Your task to perform on an android device: Do I have any events tomorrow? Image 0: 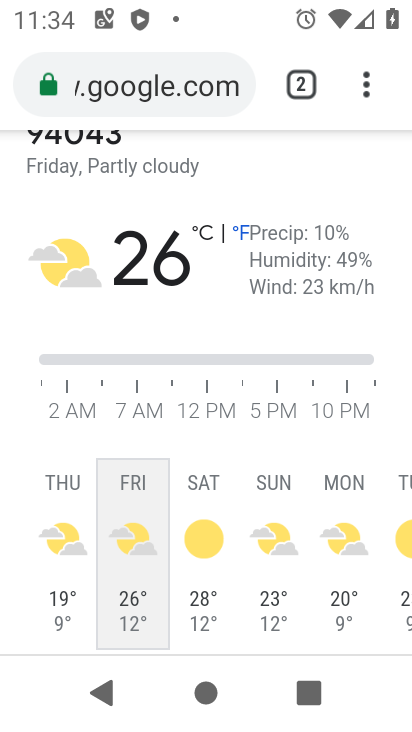
Step 0: press home button
Your task to perform on an android device: Do I have any events tomorrow? Image 1: 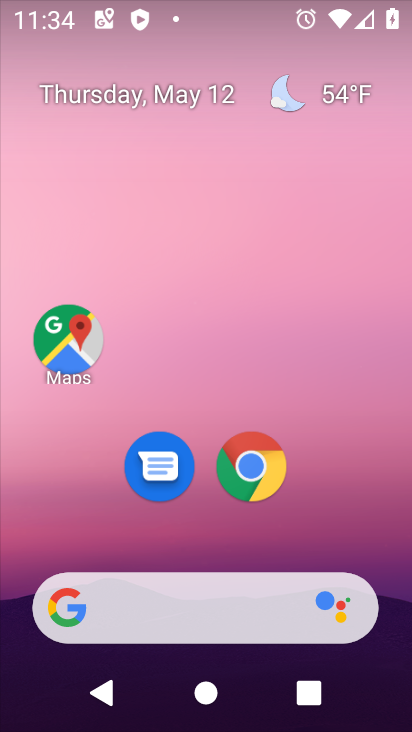
Step 1: drag from (338, 523) to (339, 216)
Your task to perform on an android device: Do I have any events tomorrow? Image 2: 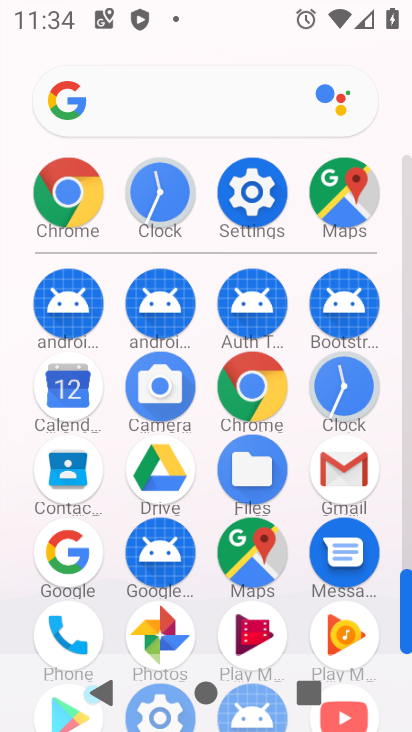
Step 2: click (55, 399)
Your task to perform on an android device: Do I have any events tomorrow? Image 3: 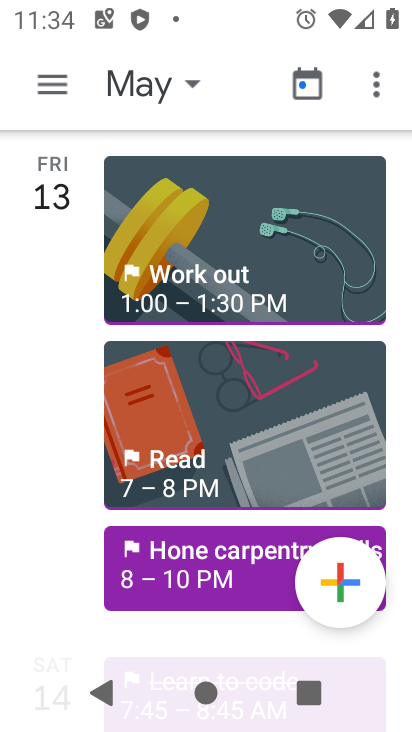
Step 3: task complete